Your task to perform on an android device: Set the phone to "Do not disturb". Image 0: 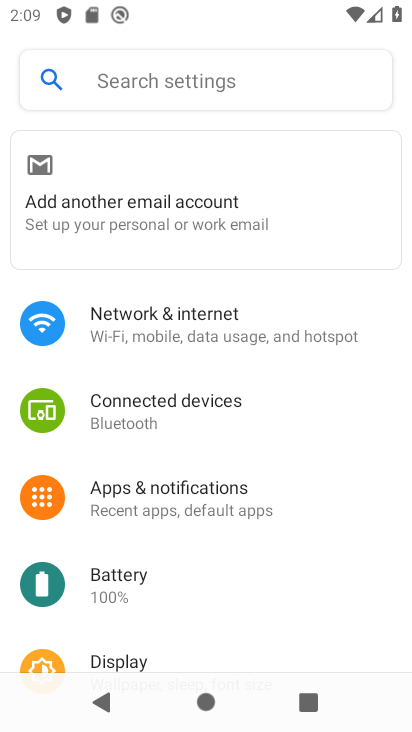
Step 0: drag from (191, 7) to (183, 486)
Your task to perform on an android device: Set the phone to "Do not disturb". Image 1: 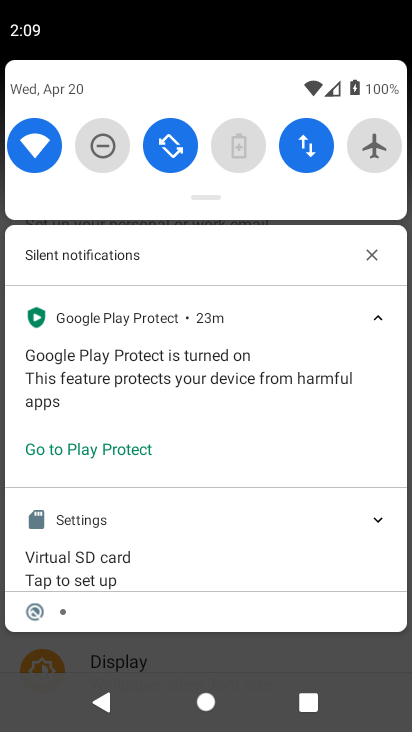
Step 1: click (103, 139)
Your task to perform on an android device: Set the phone to "Do not disturb". Image 2: 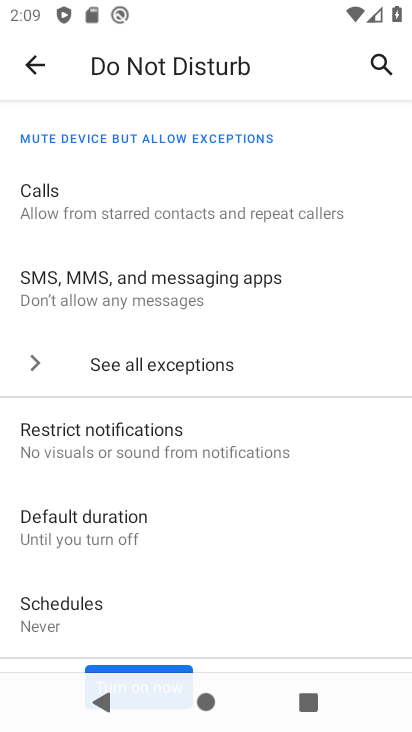
Step 2: task complete